Your task to perform on an android device: What's on my calendar today? Image 0: 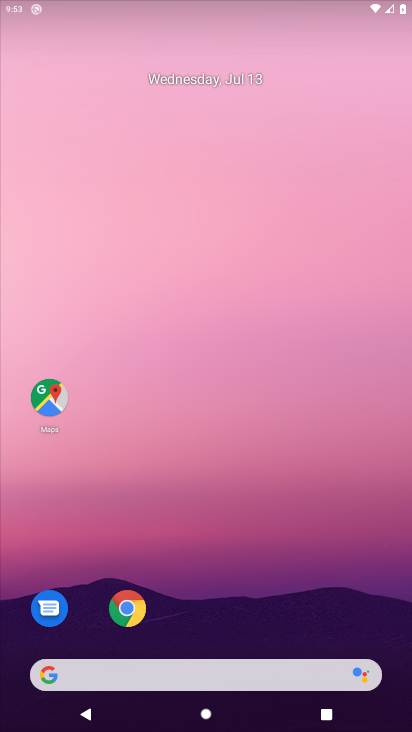
Step 0: drag from (40, 686) to (285, 21)
Your task to perform on an android device: What's on my calendar today? Image 1: 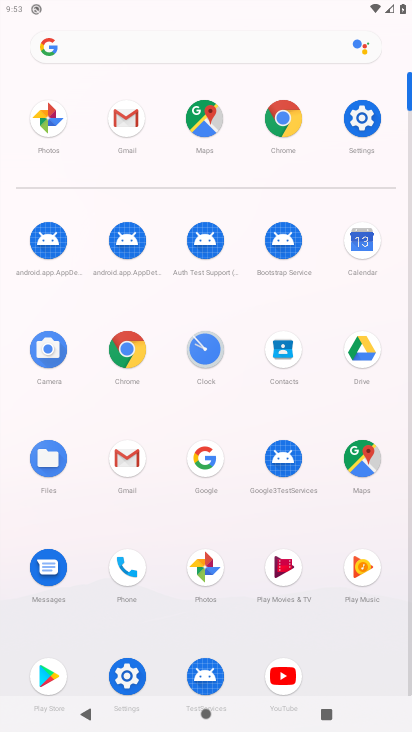
Step 1: click (361, 251)
Your task to perform on an android device: What's on my calendar today? Image 2: 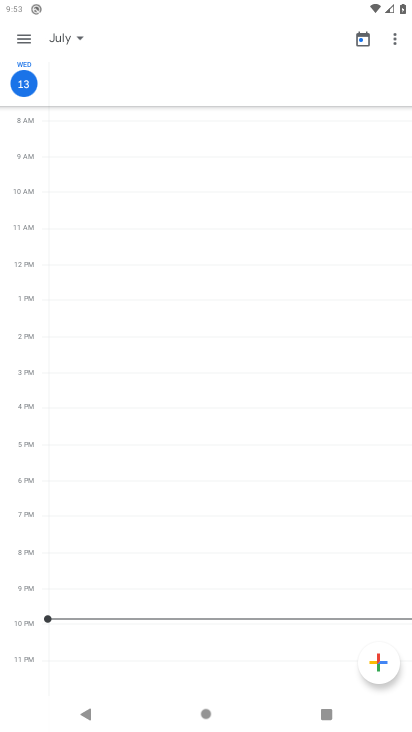
Step 2: click (19, 31)
Your task to perform on an android device: What's on my calendar today? Image 3: 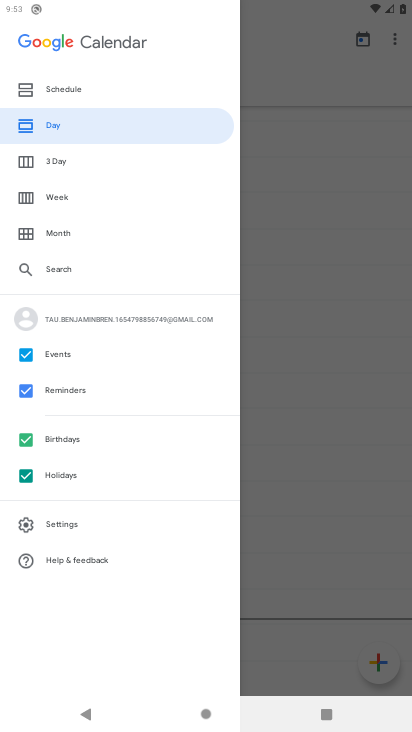
Step 3: click (323, 71)
Your task to perform on an android device: What's on my calendar today? Image 4: 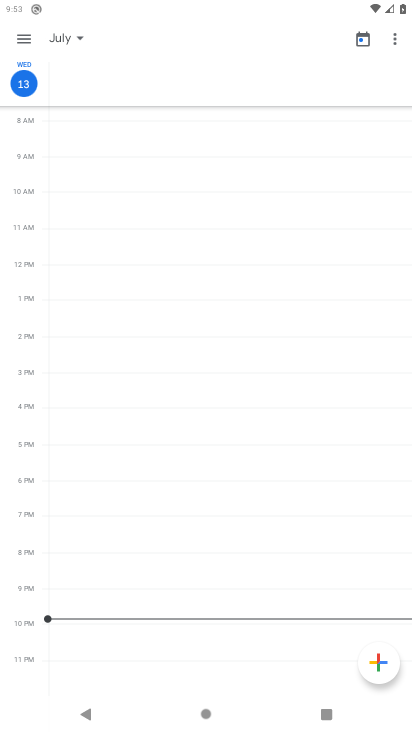
Step 4: drag from (76, 439) to (111, 730)
Your task to perform on an android device: What's on my calendar today? Image 5: 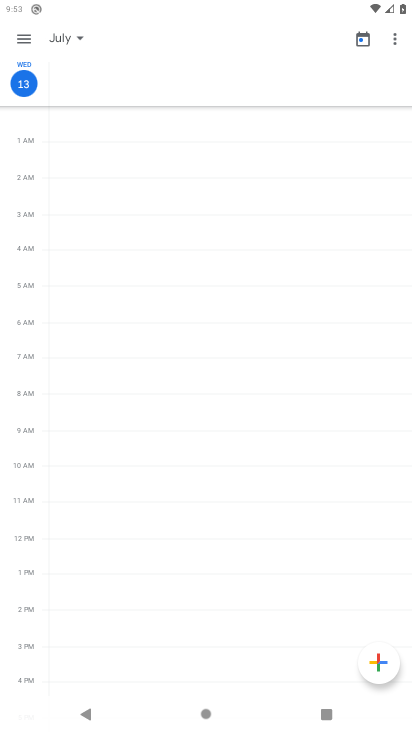
Step 5: click (73, 34)
Your task to perform on an android device: What's on my calendar today? Image 6: 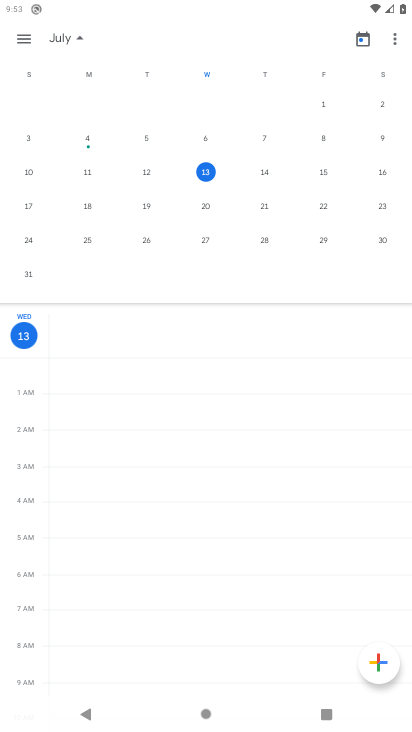
Step 6: task complete